Your task to perform on an android device: allow cookies in the chrome app Image 0: 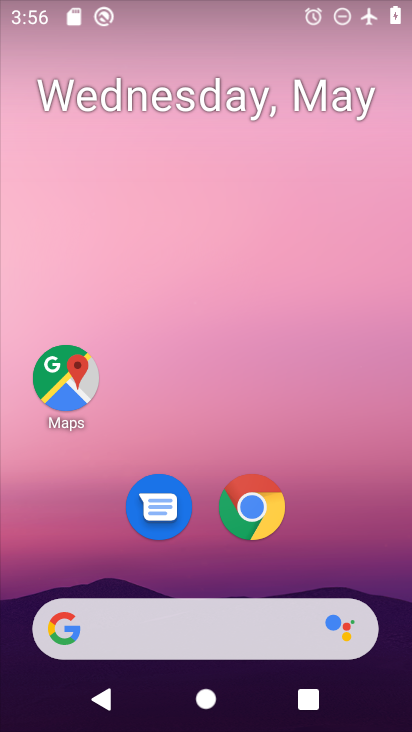
Step 0: drag from (267, 510) to (271, 67)
Your task to perform on an android device: allow cookies in the chrome app Image 1: 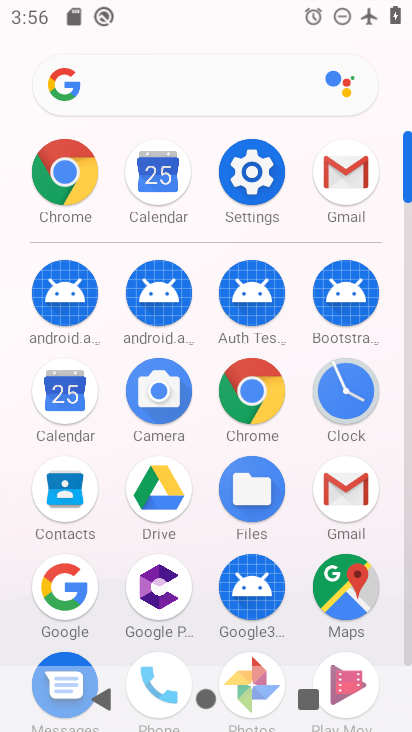
Step 1: click (85, 166)
Your task to perform on an android device: allow cookies in the chrome app Image 2: 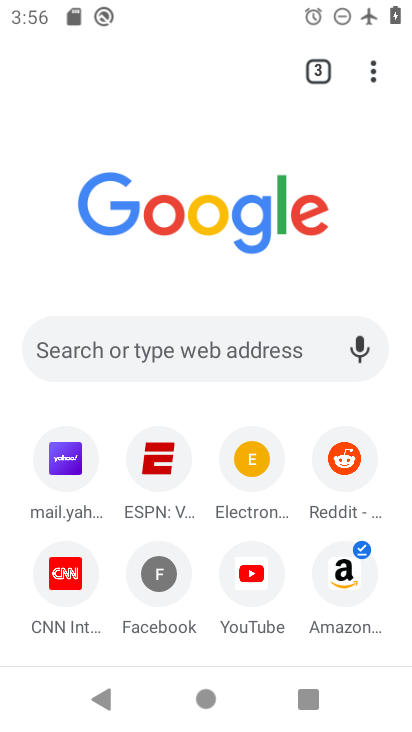
Step 2: click (382, 70)
Your task to perform on an android device: allow cookies in the chrome app Image 3: 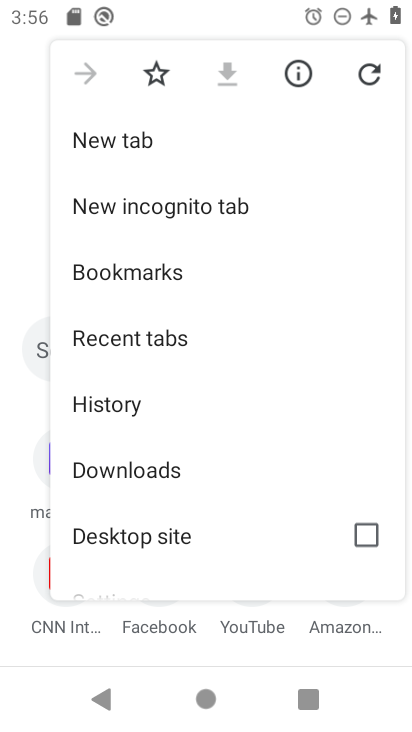
Step 3: drag from (216, 434) to (209, 247)
Your task to perform on an android device: allow cookies in the chrome app Image 4: 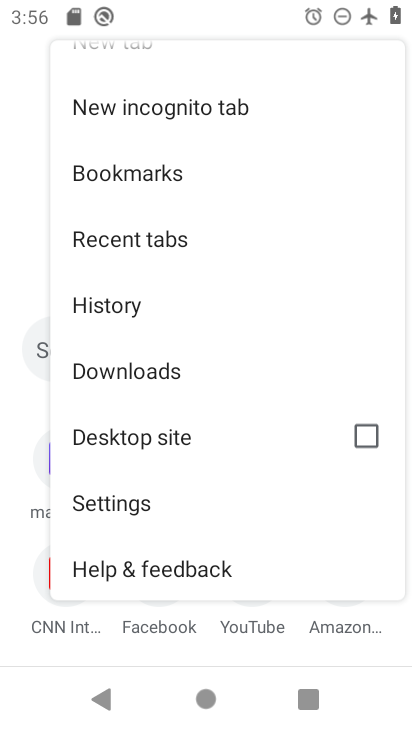
Step 4: click (166, 508)
Your task to perform on an android device: allow cookies in the chrome app Image 5: 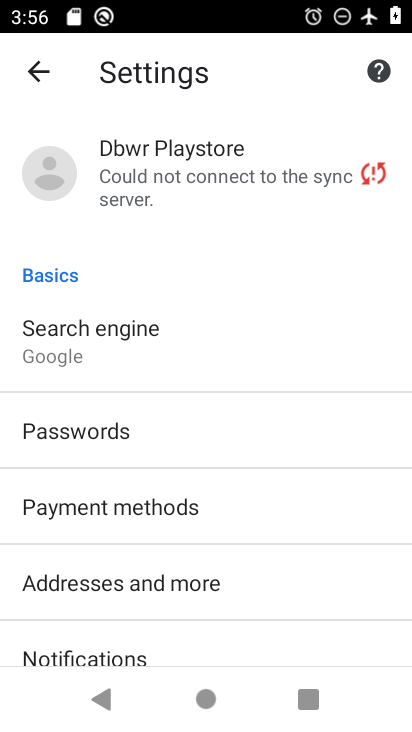
Step 5: drag from (158, 605) to (161, 255)
Your task to perform on an android device: allow cookies in the chrome app Image 6: 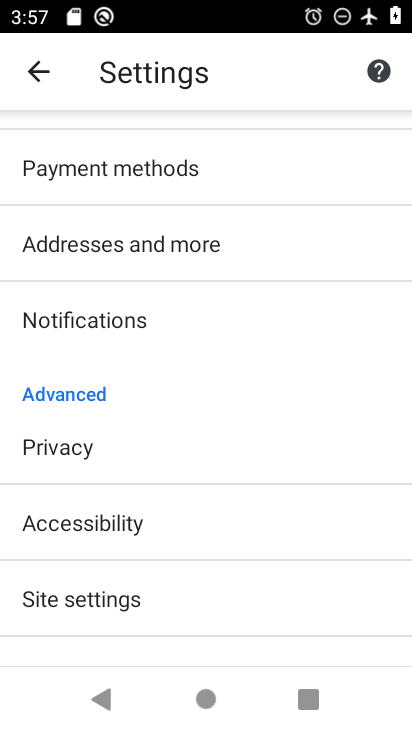
Step 6: click (130, 606)
Your task to perform on an android device: allow cookies in the chrome app Image 7: 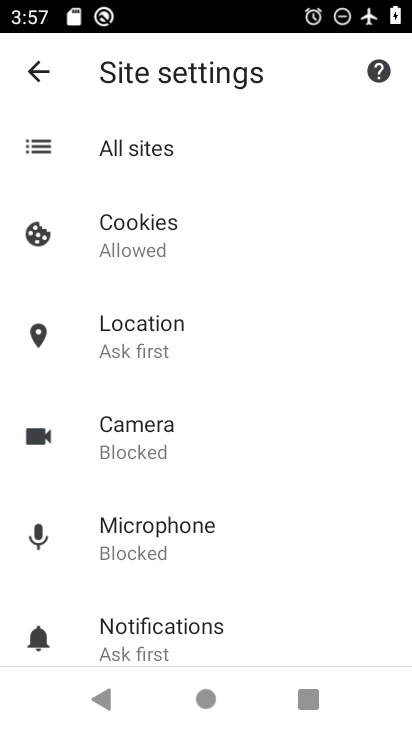
Step 7: click (184, 228)
Your task to perform on an android device: allow cookies in the chrome app Image 8: 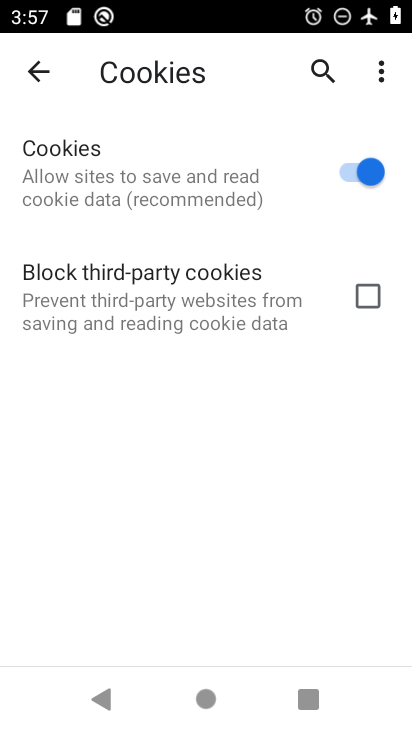
Step 8: task complete